Your task to perform on an android device: Search for apple airpods on amazon, select the first entry, add it to the cart, then select checkout. Image 0: 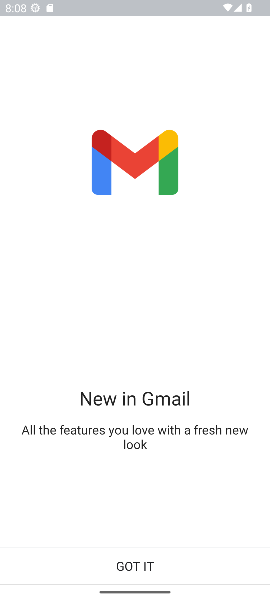
Step 0: press home button
Your task to perform on an android device: Search for apple airpods on amazon, select the first entry, add it to the cart, then select checkout. Image 1: 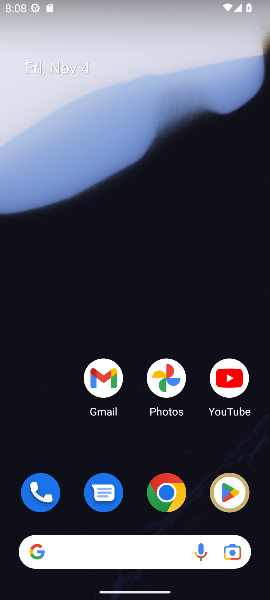
Step 1: drag from (131, 450) to (169, 85)
Your task to perform on an android device: Search for apple airpods on amazon, select the first entry, add it to the cart, then select checkout. Image 2: 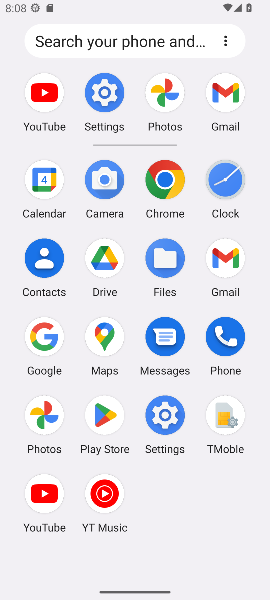
Step 2: click (162, 178)
Your task to perform on an android device: Search for apple airpods on amazon, select the first entry, add it to the cart, then select checkout. Image 3: 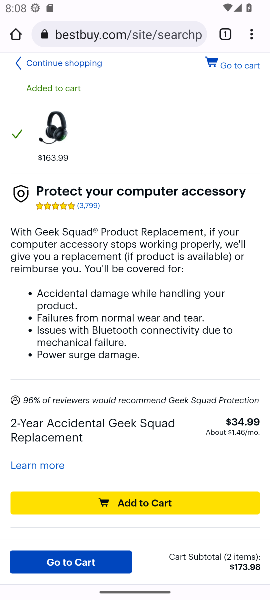
Step 3: click (133, 39)
Your task to perform on an android device: Search for apple airpods on amazon, select the first entry, add it to the cart, then select checkout. Image 4: 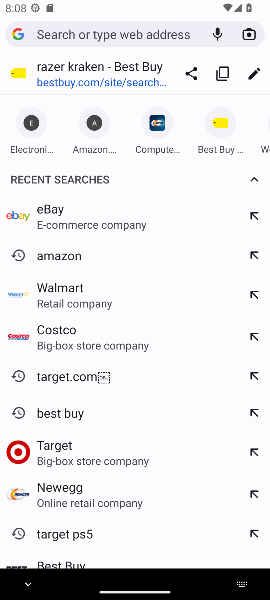
Step 4: type "amazon.com"
Your task to perform on an android device: Search for apple airpods on amazon, select the first entry, add it to the cart, then select checkout. Image 5: 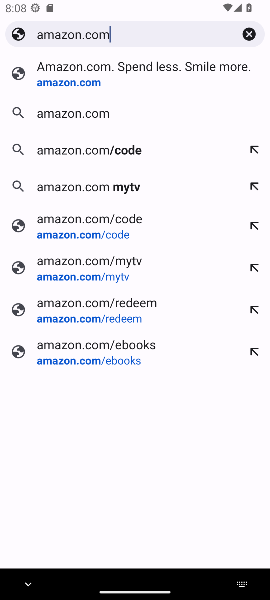
Step 5: press enter
Your task to perform on an android device: Search for apple airpods on amazon, select the first entry, add it to the cart, then select checkout. Image 6: 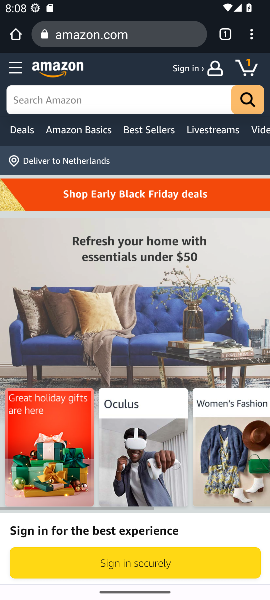
Step 6: click (145, 103)
Your task to perform on an android device: Search for apple airpods on amazon, select the first entry, add it to the cart, then select checkout. Image 7: 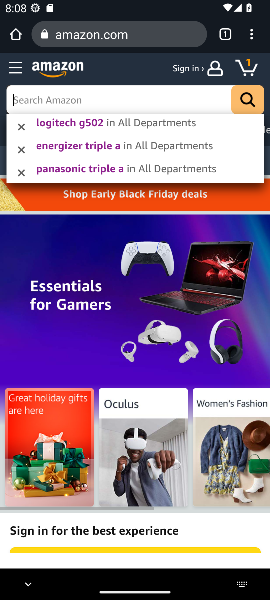
Step 7: type "apple airpods"
Your task to perform on an android device: Search for apple airpods on amazon, select the first entry, add it to the cart, then select checkout. Image 8: 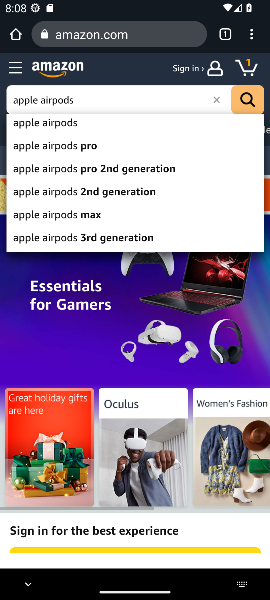
Step 8: press enter
Your task to perform on an android device: Search for apple airpods on amazon, select the first entry, add it to the cart, then select checkout. Image 9: 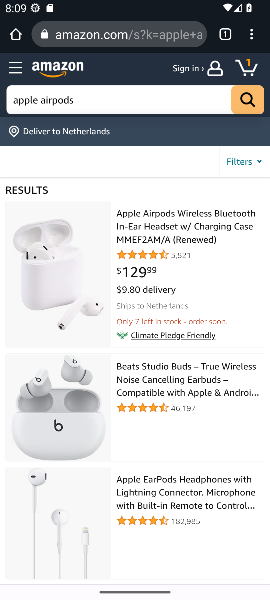
Step 9: click (155, 244)
Your task to perform on an android device: Search for apple airpods on amazon, select the first entry, add it to the cart, then select checkout. Image 10: 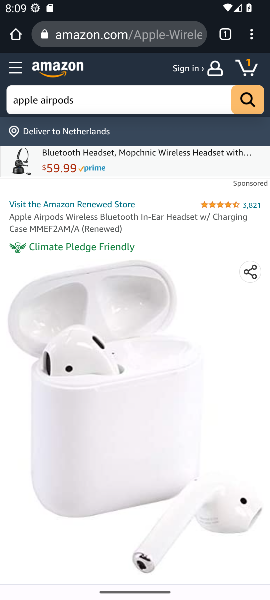
Step 10: drag from (194, 327) to (170, 133)
Your task to perform on an android device: Search for apple airpods on amazon, select the first entry, add it to the cart, then select checkout. Image 11: 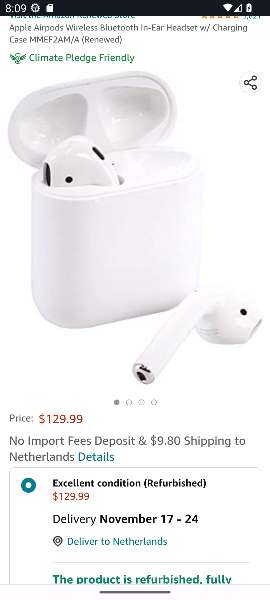
Step 11: drag from (201, 419) to (186, 120)
Your task to perform on an android device: Search for apple airpods on amazon, select the first entry, add it to the cart, then select checkout. Image 12: 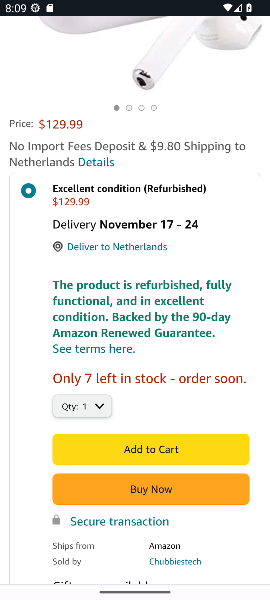
Step 12: click (167, 447)
Your task to perform on an android device: Search for apple airpods on amazon, select the first entry, add it to the cart, then select checkout. Image 13: 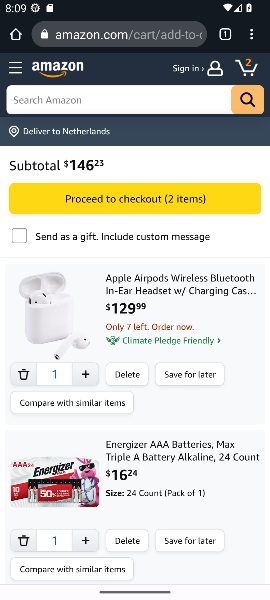
Step 13: click (203, 203)
Your task to perform on an android device: Search for apple airpods on amazon, select the first entry, add it to the cart, then select checkout. Image 14: 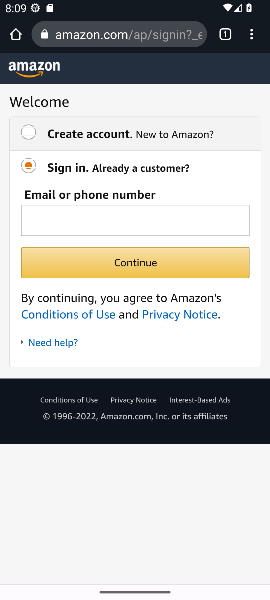
Step 14: task complete